Your task to perform on an android device: turn on location history Image 0: 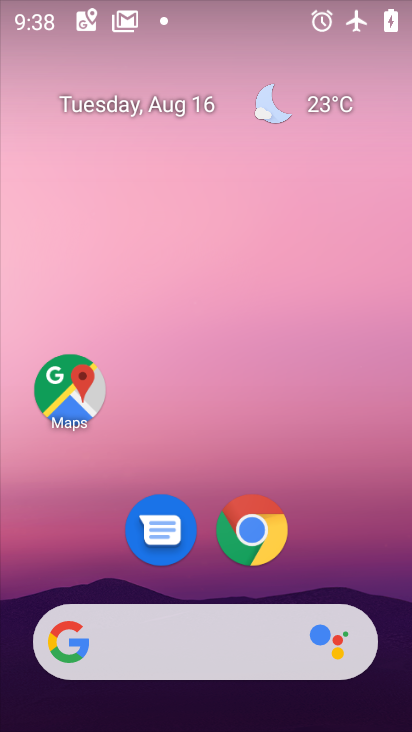
Step 0: drag from (348, 556) to (385, 121)
Your task to perform on an android device: turn on location history Image 1: 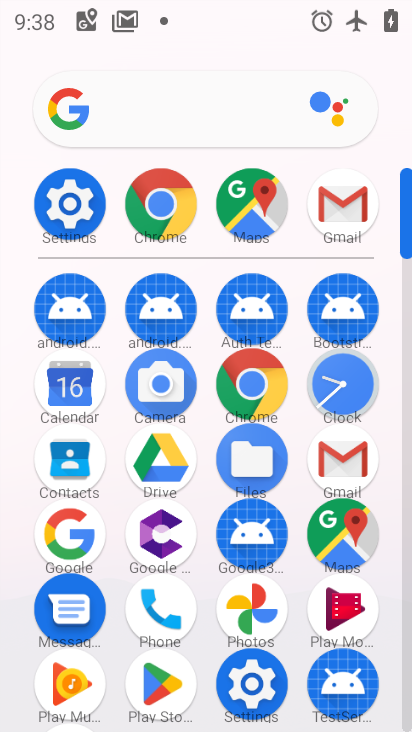
Step 1: click (246, 689)
Your task to perform on an android device: turn on location history Image 2: 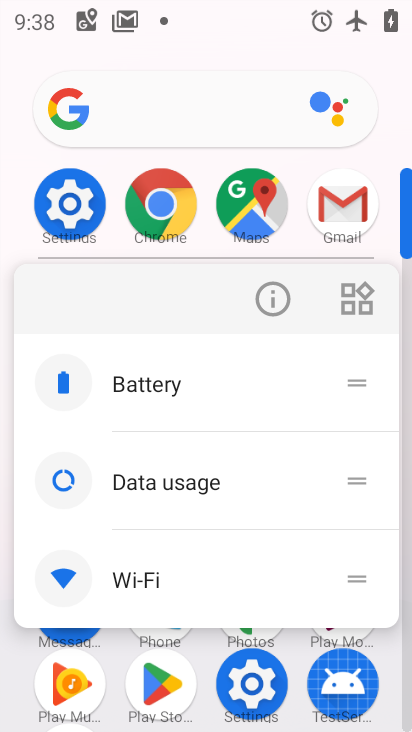
Step 2: click (253, 681)
Your task to perform on an android device: turn on location history Image 3: 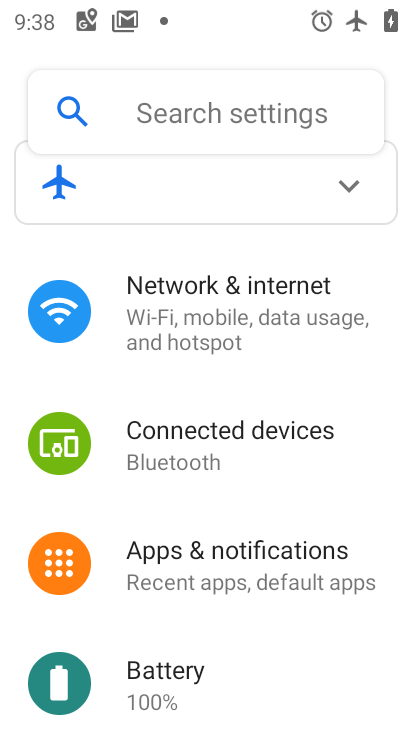
Step 3: drag from (257, 658) to (295, 280)
Your task to perform on an android device: turn on location history Image 4: 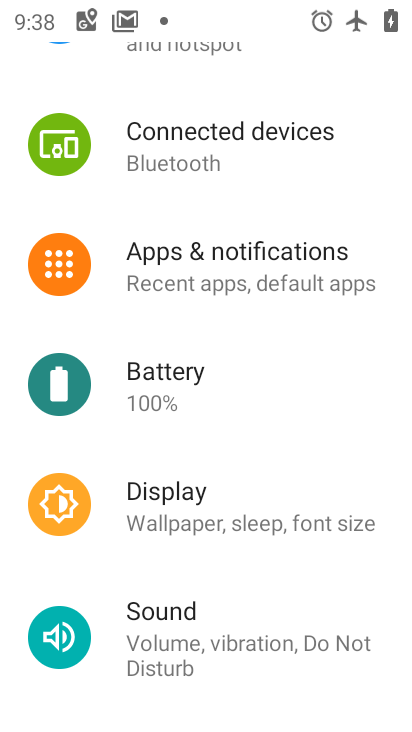
Step 4: drag from (267, 480) to (314, 138)
Your task to perform on an android device: turn on location history Image 5: 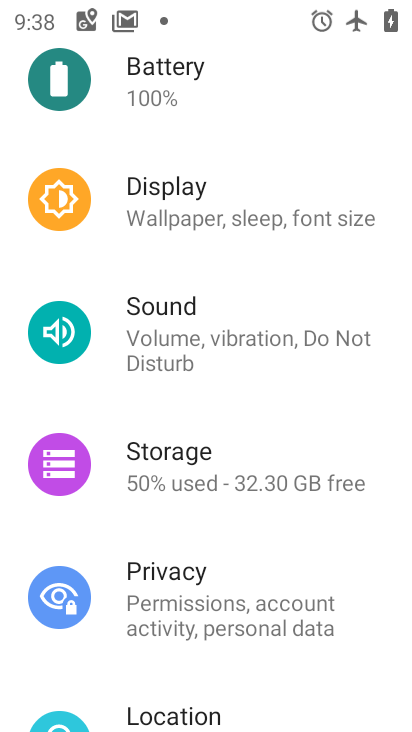
Step 5: click (192, 720)
Your task to perform on an android device: turn on location history Image 6: 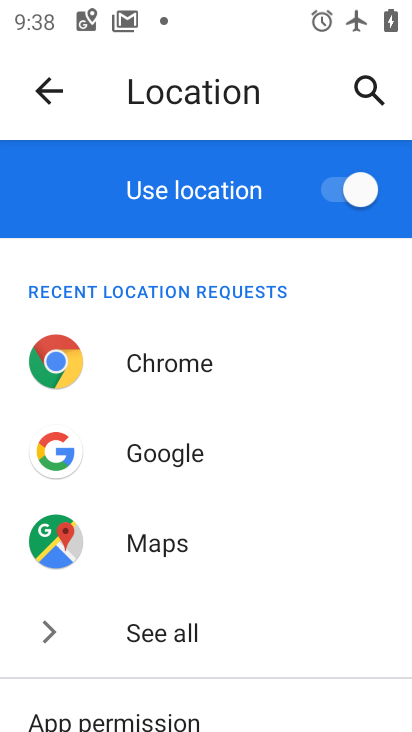
Step 6: drag from (265, 640) to (339, 261)
Your task to perform on an android device: turn on location history Image 7: 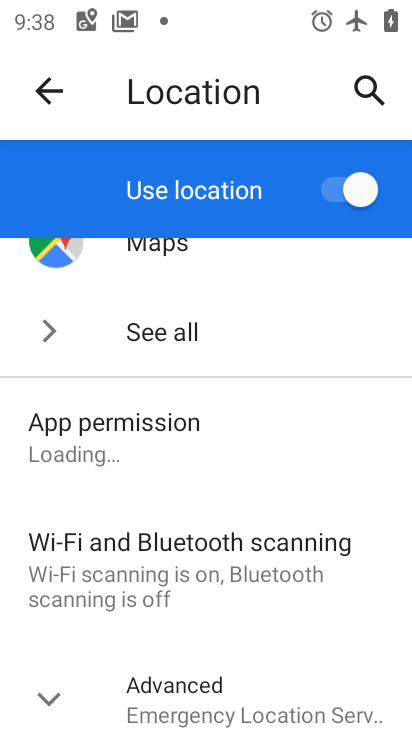
Step 7: click (191, 717)
Your task to perform on an android device: turn on location history Image 8: 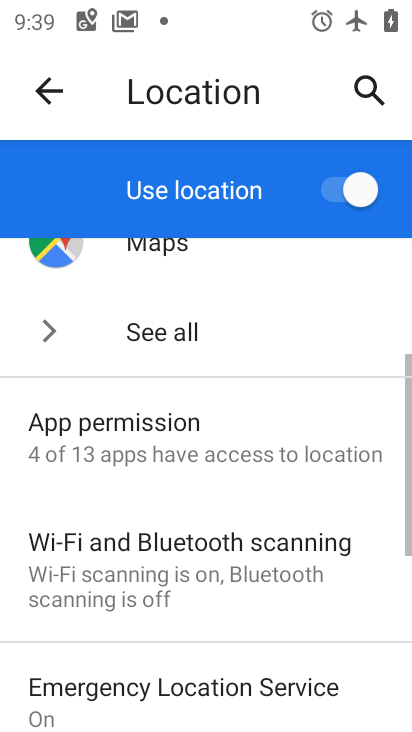
Step 8: drag from (333, 418) to (379, 167)
Your task to perform on an android device: turn on location history Image 9: 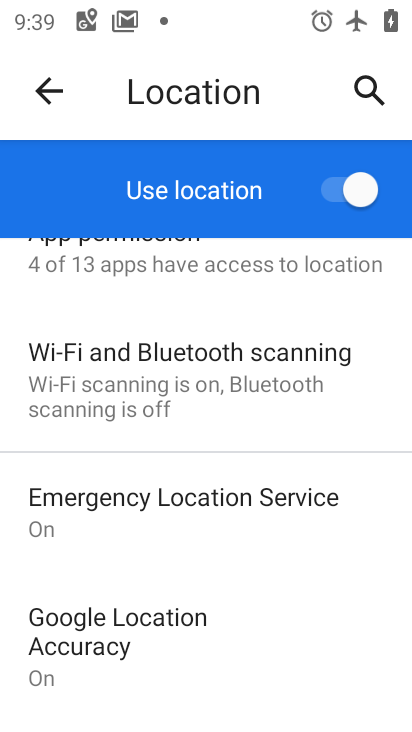
Step 9: drag from (201, 642) to (343, 284)
Your task to perform on an android device: turn on location history Image 10: 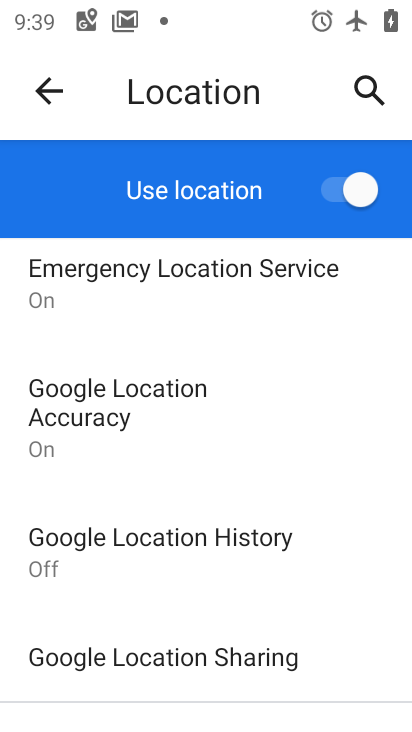
Step 10: click (190, 534)
Your task to perform on an android device: turn on location history Image 11: 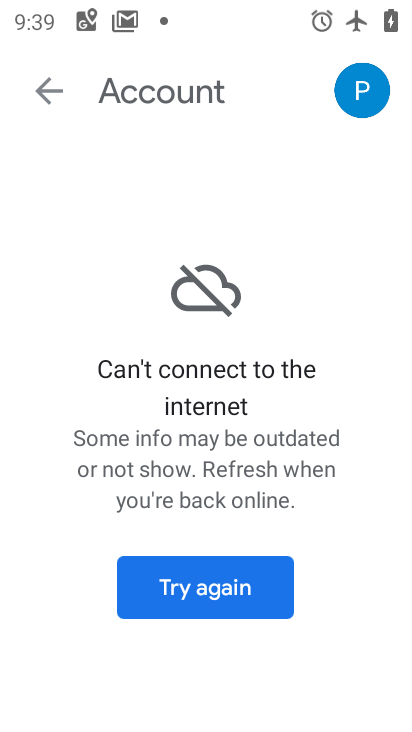
Step 11: task complete